Your task to perform on an android device: Go to sound settings Image 0: 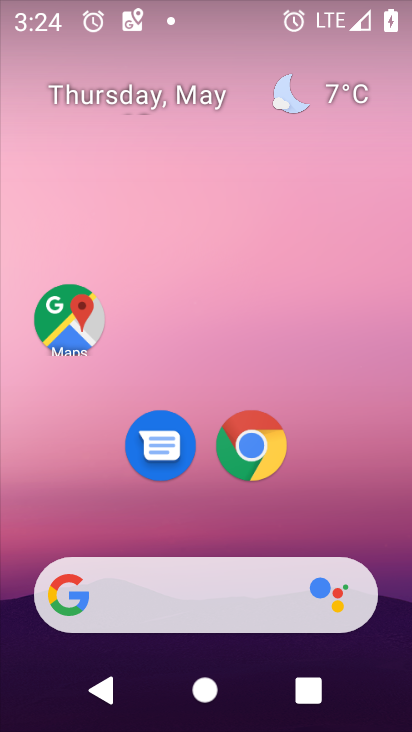
Step 0: drag from (386, 548) to (363, 1)
Your task to perform on an android device: Go to sound settings Image 1: 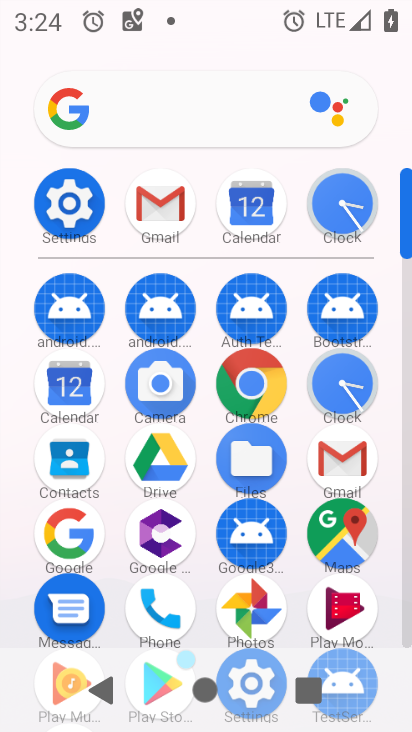
Step 1: click (74, 209)
Your task to perform on an android device: Go to sound settings Image 2: 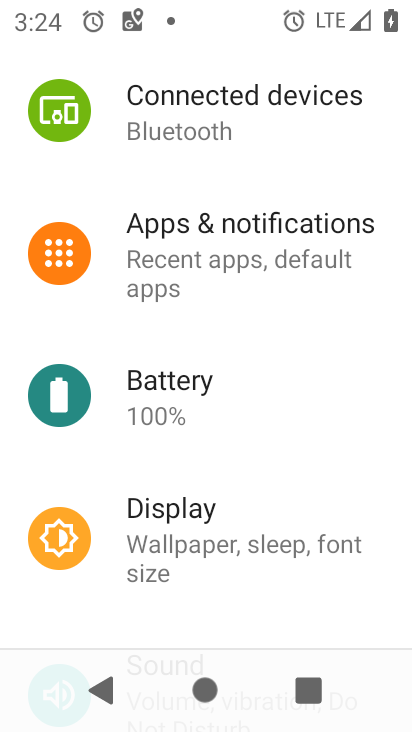
Step 2: drag from (392, 554) to (390, 170)
Your task to perform on an android device: Go to sound settings Image 3: 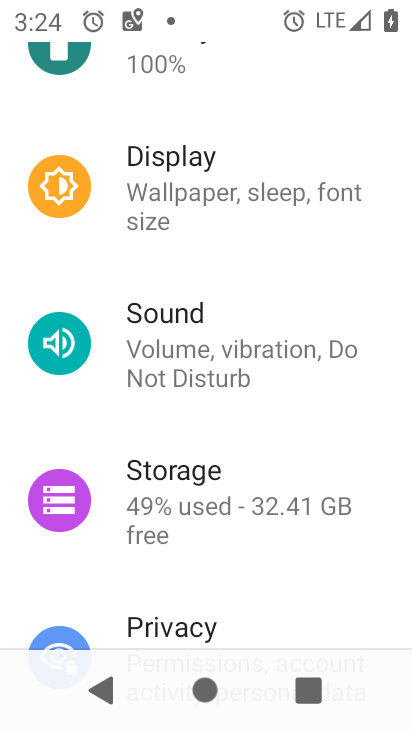
Step 3: click (174, 349)
Your task to perform on an android device: Go to sound settings Image 4: 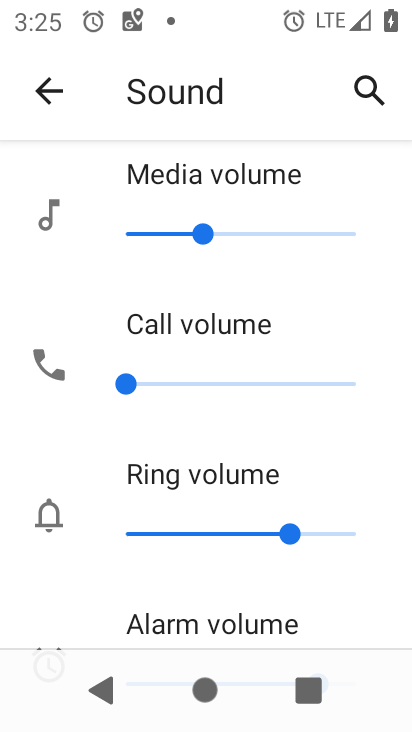
Step 4: task complete